Your task to perform on an android device: Open Youtube and go to "Your channel" Image 0: 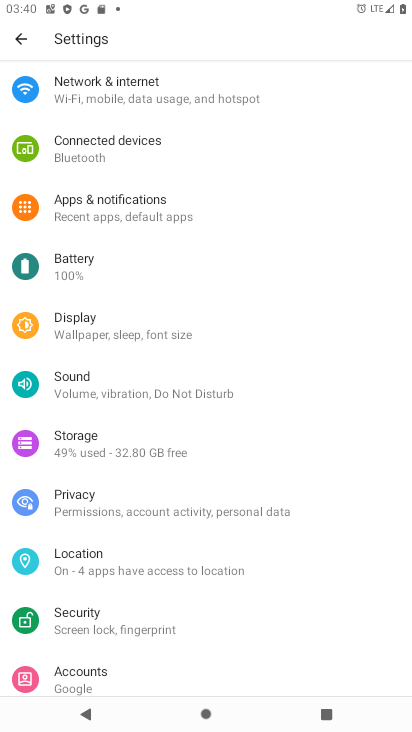
Step 0: press home button
Your task to perform on an android device: Open Youtube and go to "Your channel" Image 1: 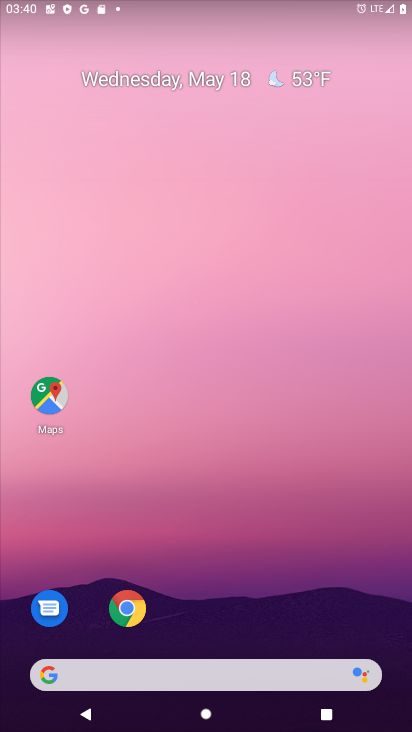
Step 1: drag from (329, 632) to (324, 47)
Your task to perform on an android device: Open Youtube and go to "Your channel" Image 2: 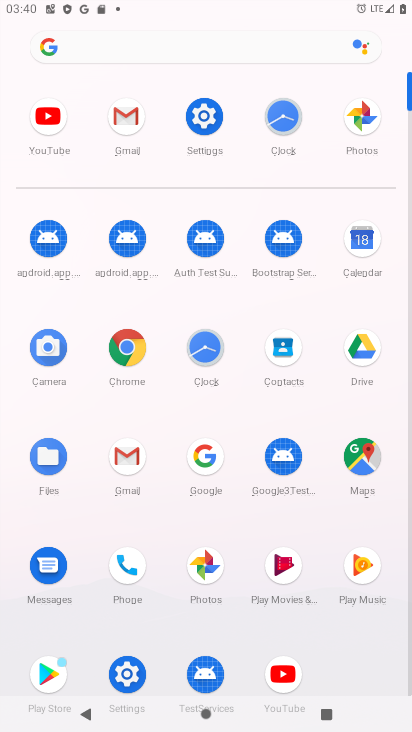
Step 2: click (284, 672)
Your task to perform on an android device: Open Youtube and go to "Your channel" Image 3: 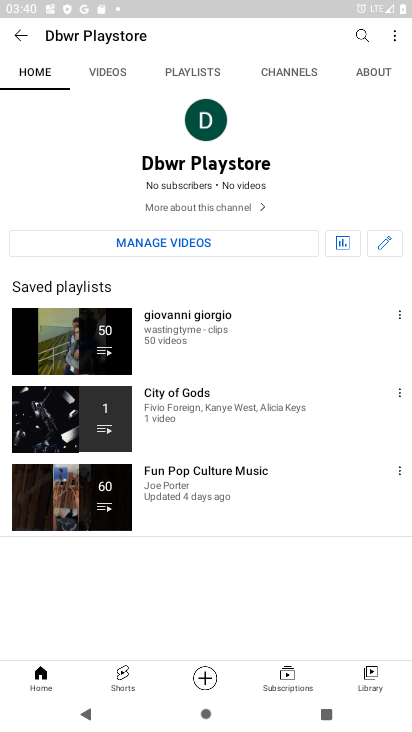
Step 3: task complete